Your task to perform on an android device: set default search engine in the chrome app Image 0: 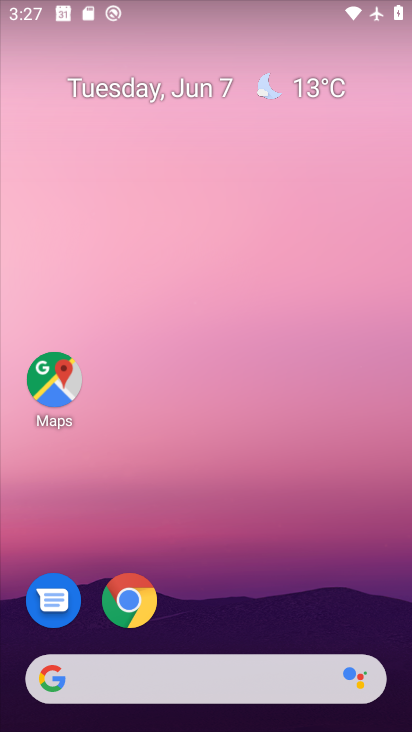
Step 0: drag from (291, 442) to (223, 109)
Your task to perform on an android device: set default search engine in the chrome app Image 1: 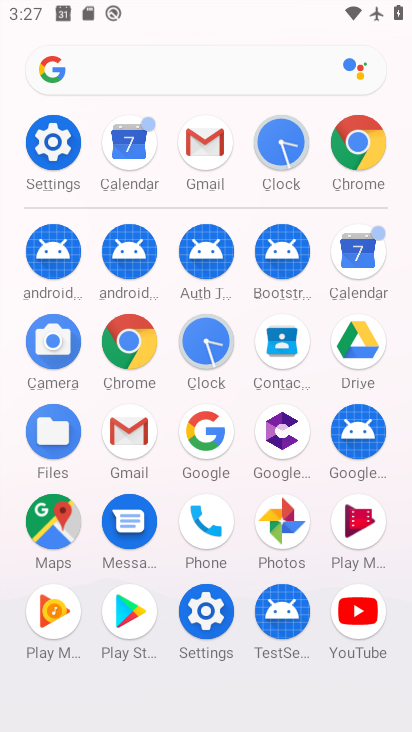
Step 1: click (130, 344)
Your task to perform on an android device: set default search engine in the chrome app Image 2: 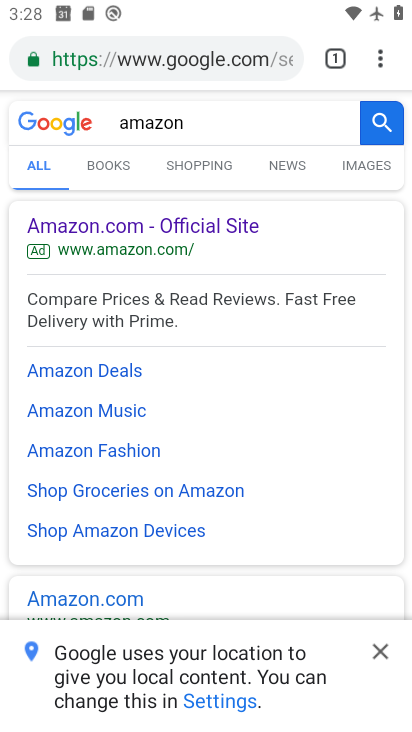
Step 2: click (375, 66)
Your task to perform on an android device: set default search engine in the chrome app Image 3: 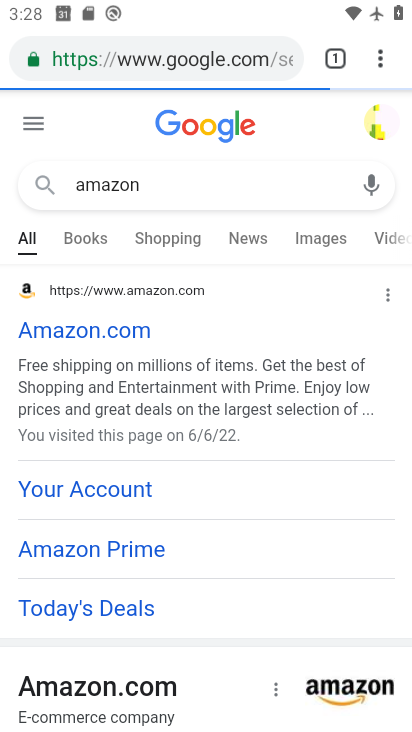
Step 3: drag from (377, 60) to (204, 622)
Your task to perform on an android device: set default search engine in the chrome app Image 4: 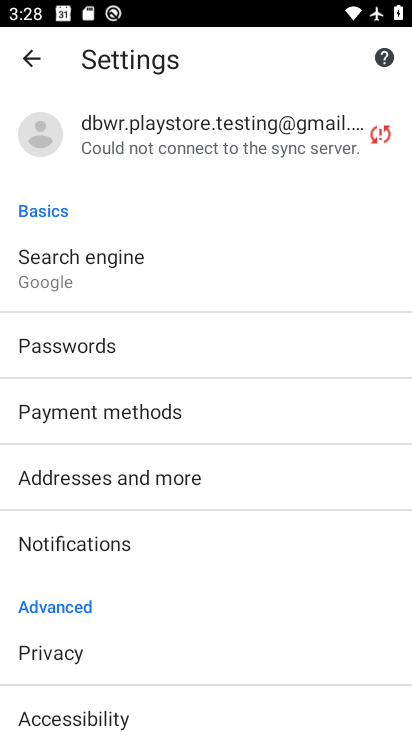
Step 4: click (143, 267)
Your task to perform on an android device: set default search engine in the chrome app Image 5: 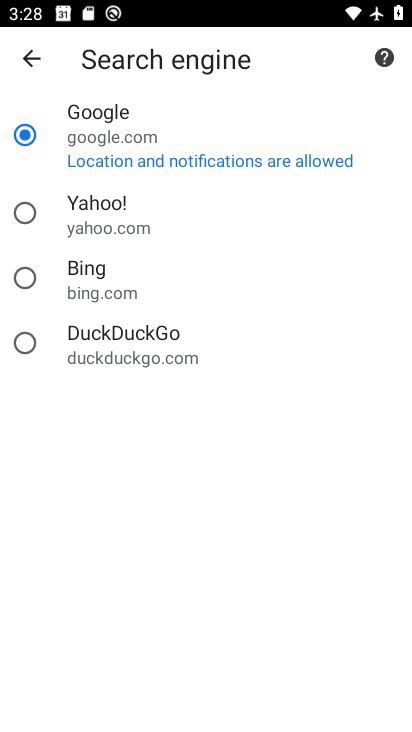
Step 5: task complete